Your task to perform on an android device: Open sound settings Image 0: 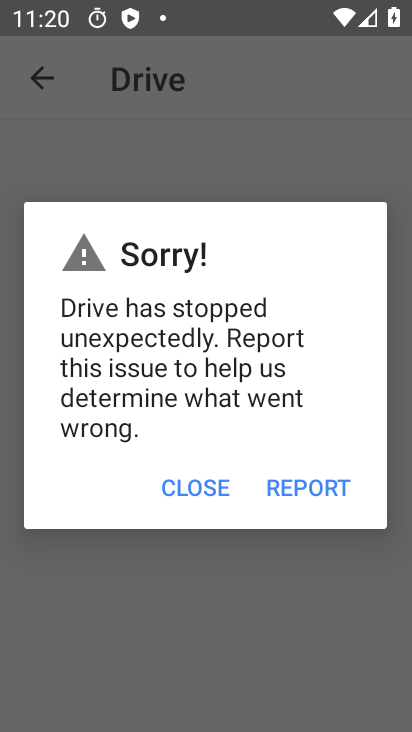
Step 0: press back button
Your task to perform on an android device: Open sound settings Image 1: 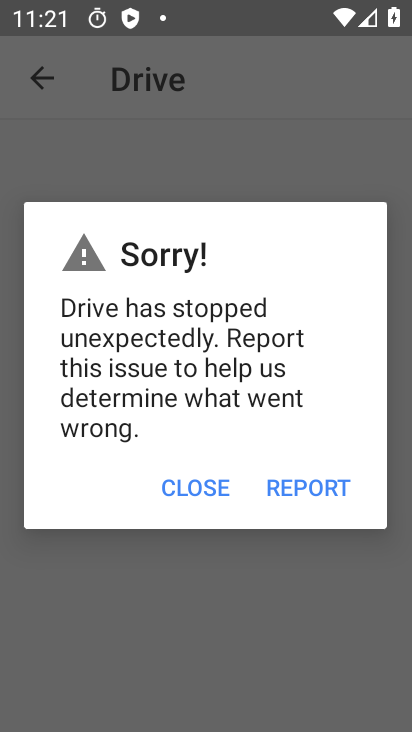
Step 1: press back button
Your task to perform on an android device: Open sound settings Image 2: 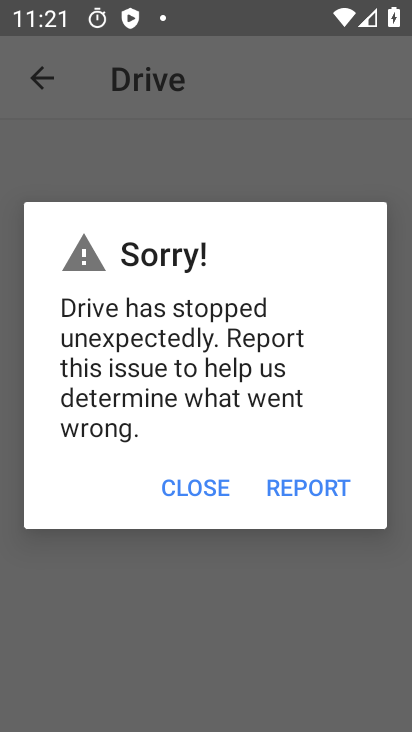
Step 2: press home button
Your task to perform on an android device: Open sound settings Image 3: 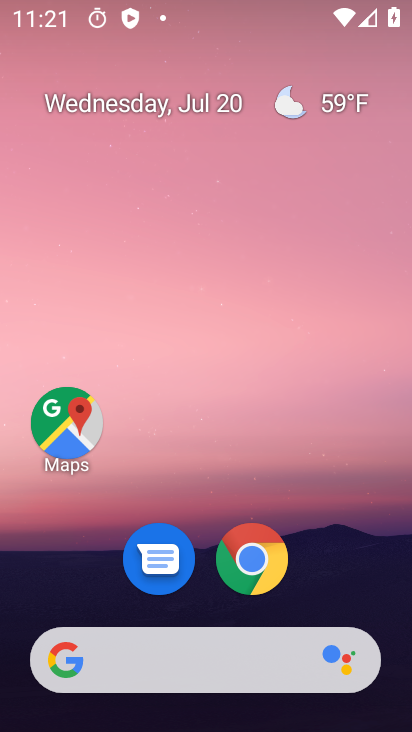
Step 3: drag from (213, 461) to (229, 32)
Your task to perform on an android device: Open sound settings Image 4: 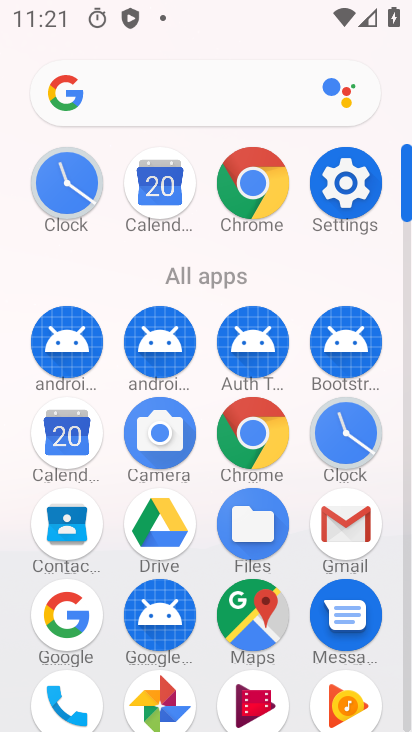
Step 4: click (352, 176)
Your task to perform on an android device: Open sound settings Image 5: 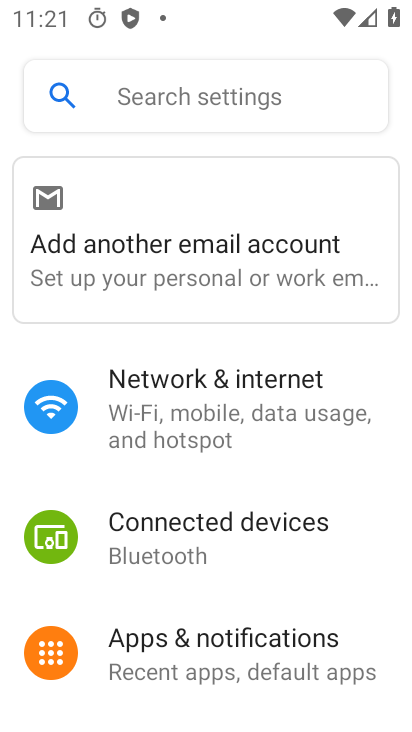
Step 5: drag from (196, 625) to (301, 133)
Your task to perform on an android device: Open sound settings Image 6: 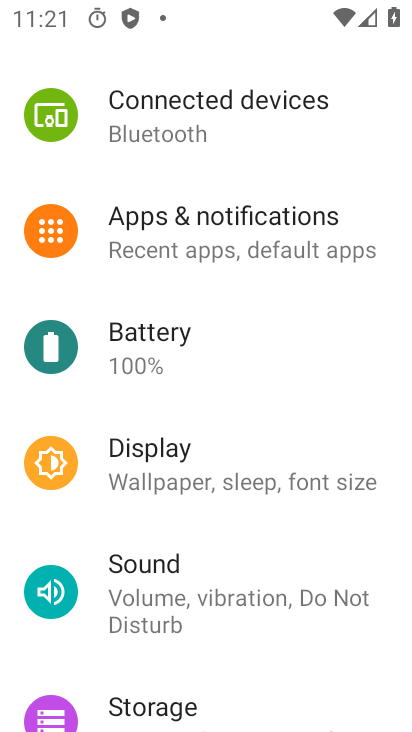
Step 6: click (121, 589)
Your task to perform on an android device: Open sound settings Image 7: 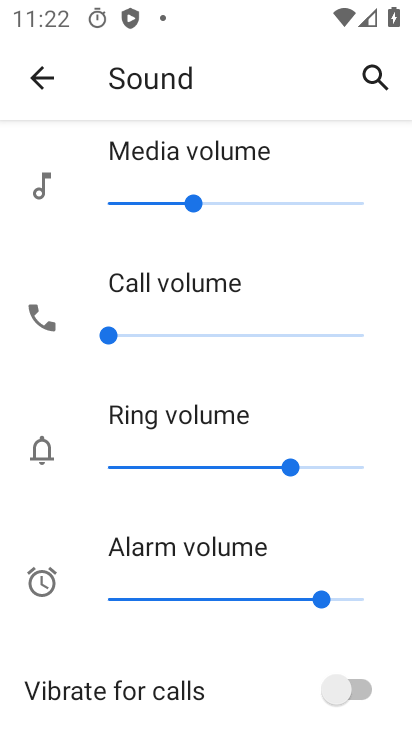
Step 7: task complete